Your task to perform on an android device: check android version Image 0: 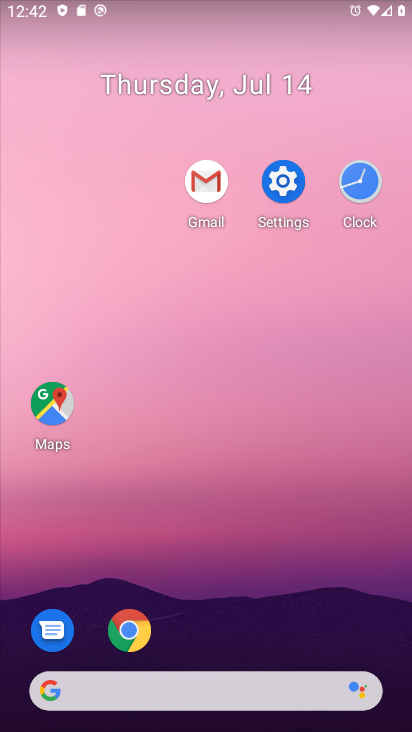
Step 0: click (287, 161)
Your task to perform on an android device: check android version Image 1: 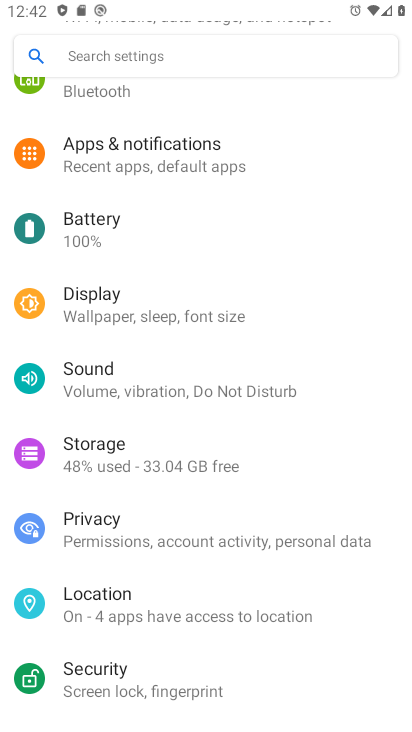
Step 1: drag from (212, 613) to (229, 172)
Your task to perform on an android device: check android version Image 2: 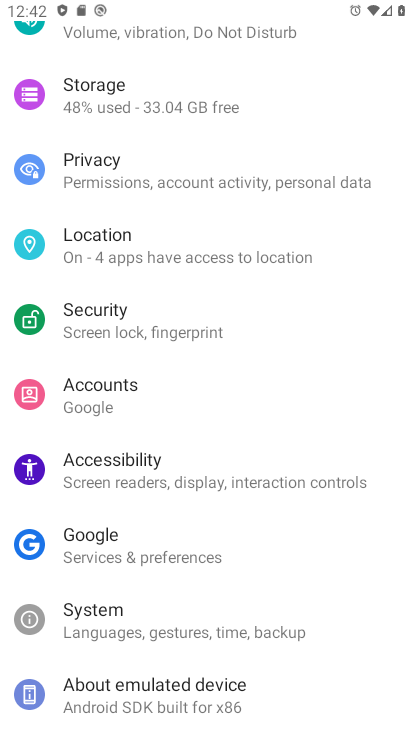
Step 2: drag from (324, 689) to (319, 334)
Your task to perform on an android device: check android version Image 3: 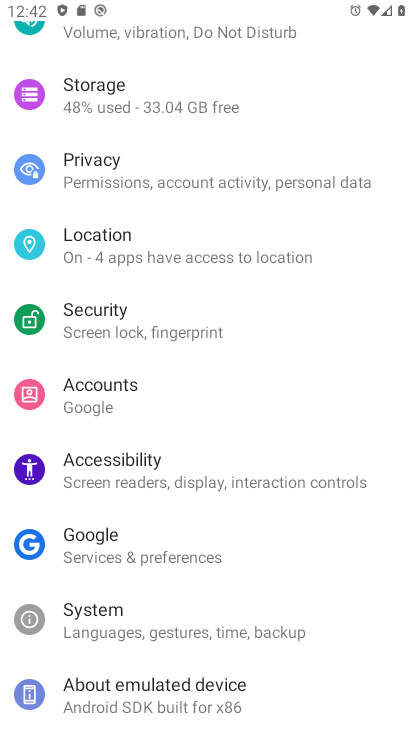
Step 3: click (235, 689)
Your task to perform on an android device: check android version Image 4: 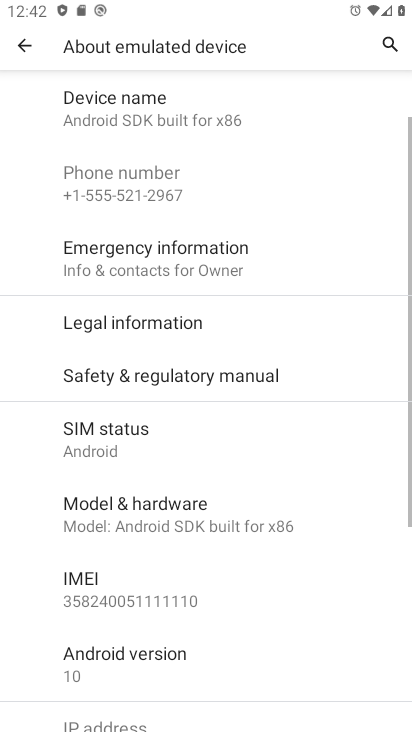
Step 4: click (173, 660)
Your task to perform on an android device: check android version Image 5: 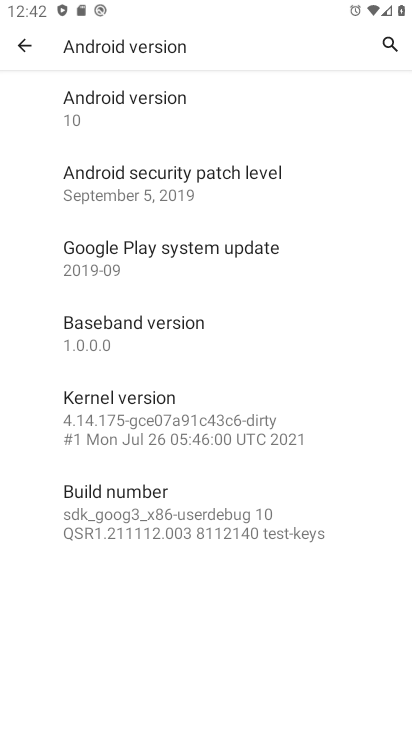
Step 5: task complete